Your task to perform on an android device: check storage Image 0: 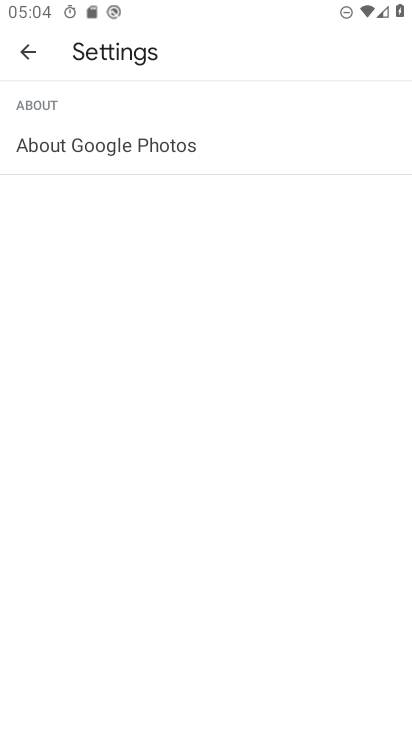
Step 0: click (29, 51)
Your task to perform on an android device: check storage Image 1: 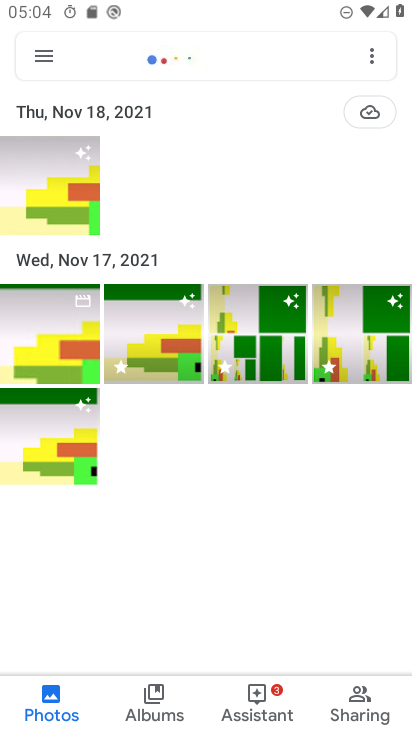
Step 1: press back button
Your task to perform on an android device: check storage Image 2: 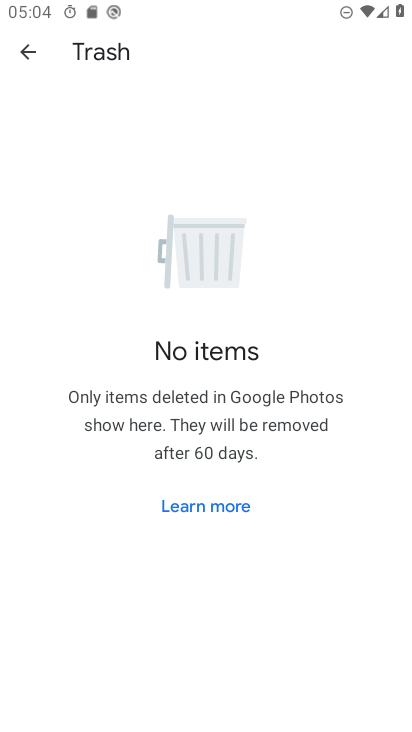
Step 2: press back button
Your task to perform on an android device: check storage Image 3: 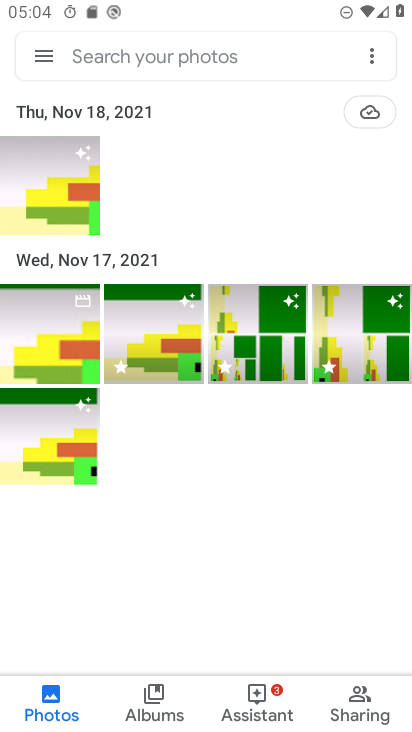
Step 3: press back button
Your task to perform on an android device: check storage Image 4: 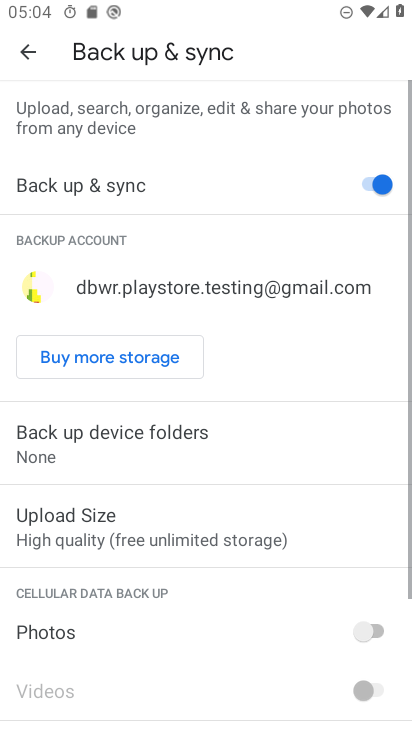
Step 4: press back button
Your task to perform on an android device: check storage Image 5: 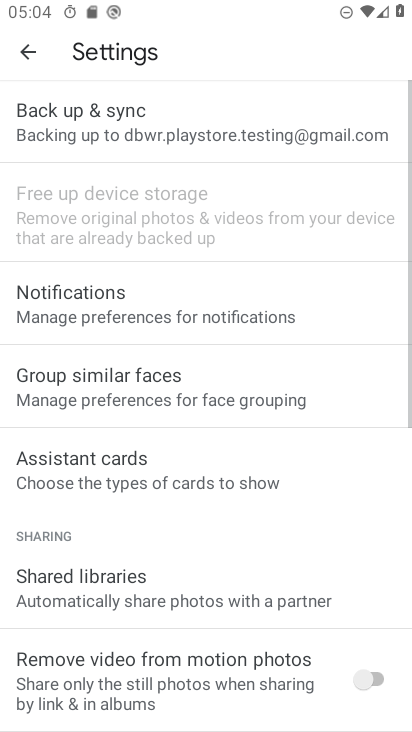
Step 5: press back button
Your task to perform on an android device: check storage Image 6: 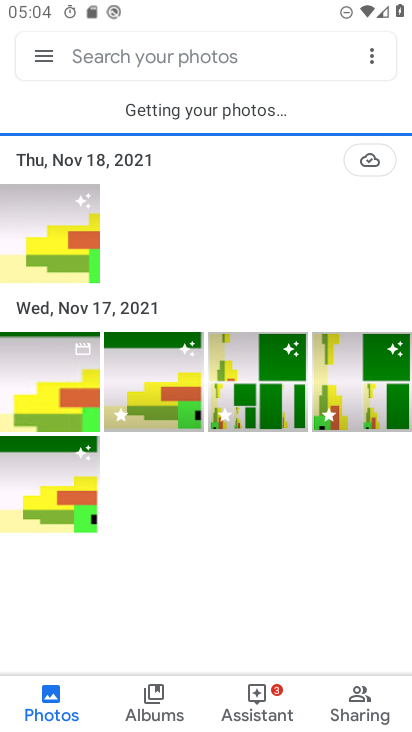
Step 6: press back button
Your task to perform on an android device: check storage Image 7: 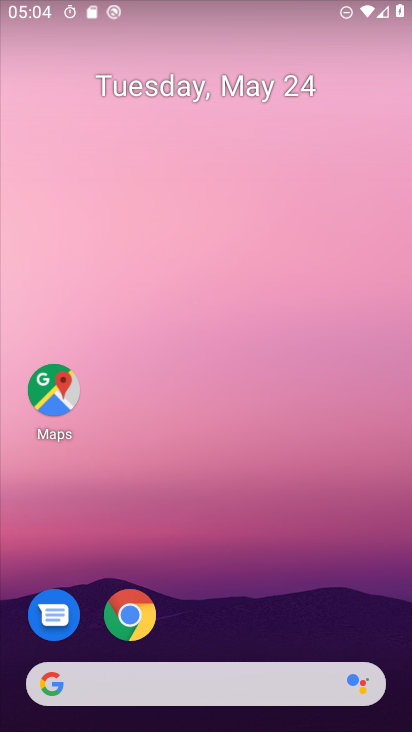
Step 7: drag from (210, 532) to (266, 157)
Your task to perform on an android device: check storage Image 8: 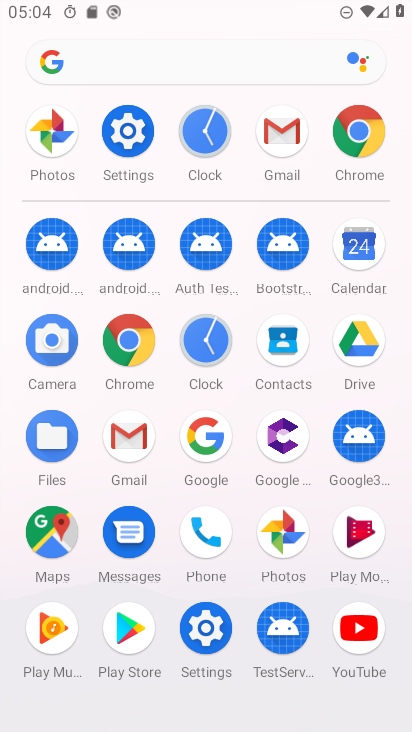
Step 8: click (125, 136)
Your task to perform on an android device: check storage Image 9: 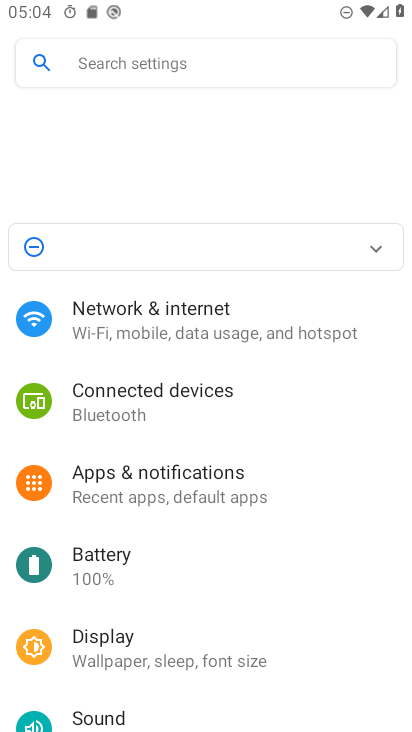
Step 9: drag from (180, 623) to (232, 263)
Your task to perform on an android device: check storage Image 10: 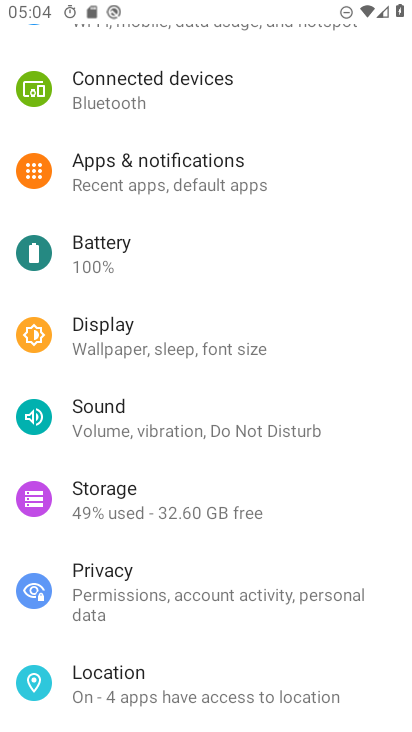
Step 10: click (103, 506)
Your task to perform on an android device: check storage Image 11: 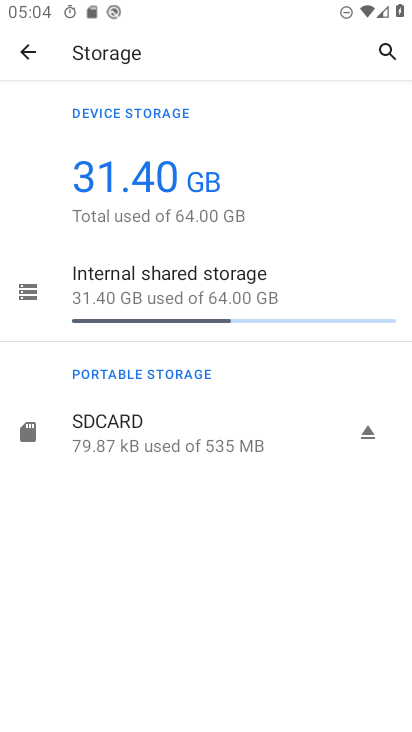
Step 11: task complete